Your task to perform on an android device: turn off translation in the chrome app Image 0: 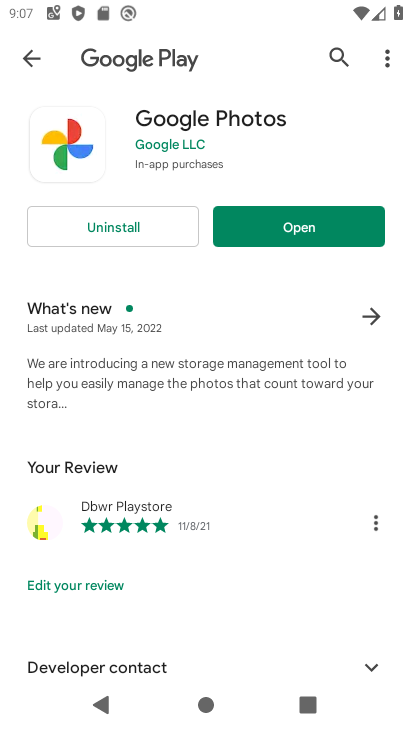
Step 0: press home button
Your task to perform on an android device: turn off translation in the chrome app Image 1: 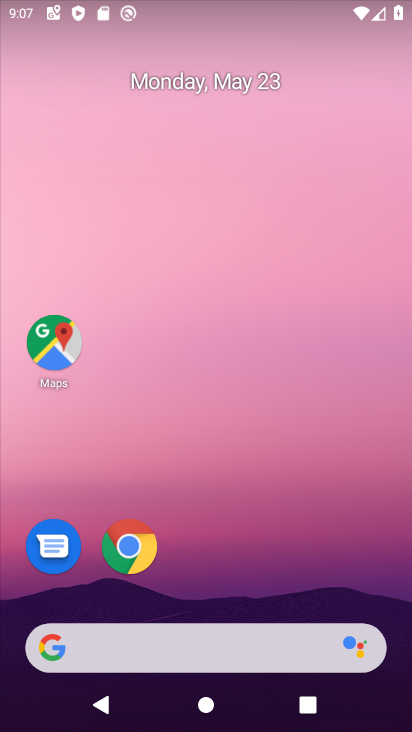
Step 1: click (132, 551)
Your task to perform on an android device: turn off translation in the chrome app Image 2: 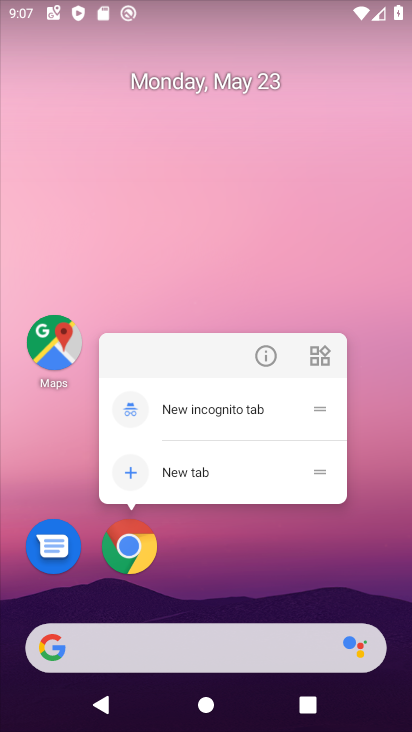
Step 2: click (131, 540)
Your task to perform on an android device: turn off translation in the chrome app Image 3: 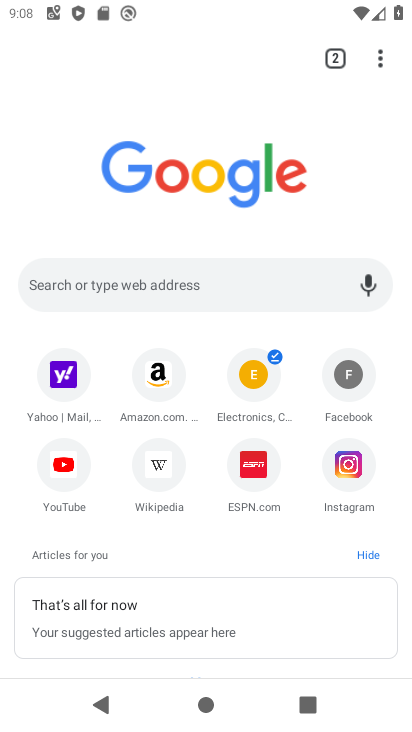
Step 3: drag from (381, 60) to (168, 492)
Your task to perform on an android device: turn off translation in the chrome app Image 4: 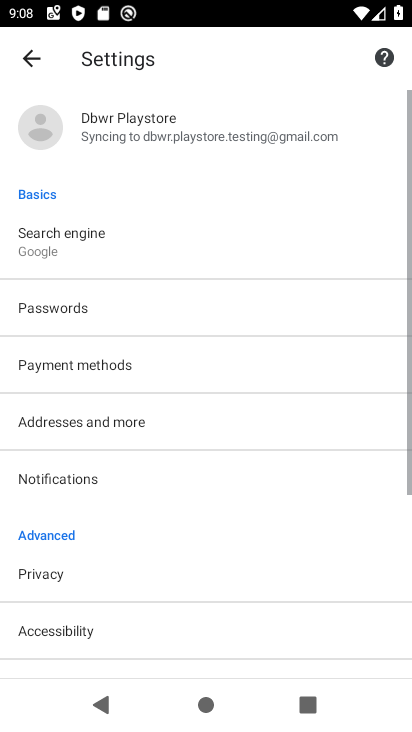
Step 4: drag from (168, 492) to (264, 43)
Your task to perform on an android device: turn off translation in the chrome app Image 5: 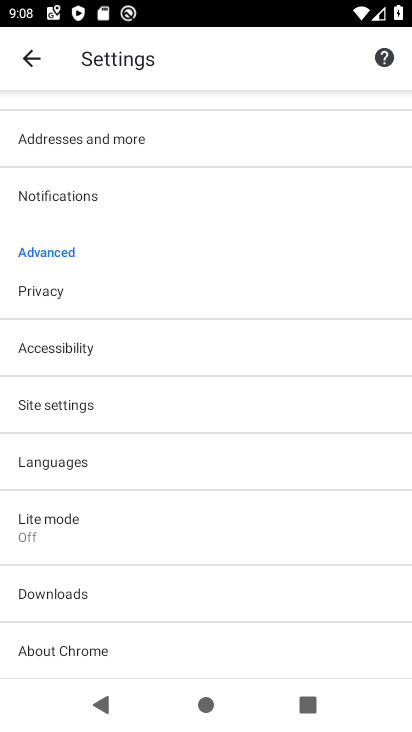
Step 5: drag from (159, 392) to (228, 219)
Your task to perform on an android device: turn off translation in the chrome app Image 6: 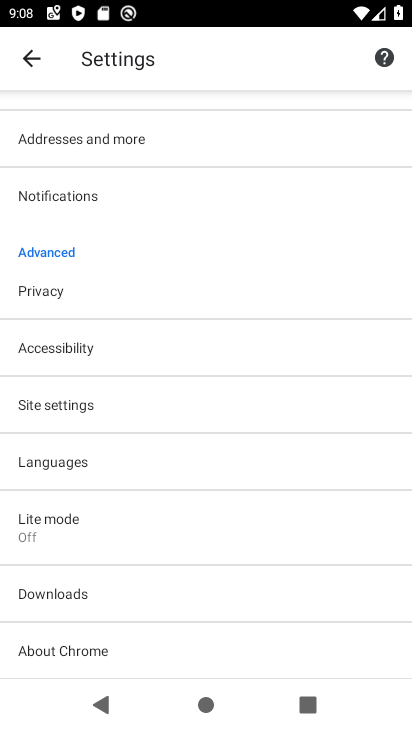
Step 6: click (111, 472)
Your task to perform on an android device: turn off translation in the chrome app Image 7: 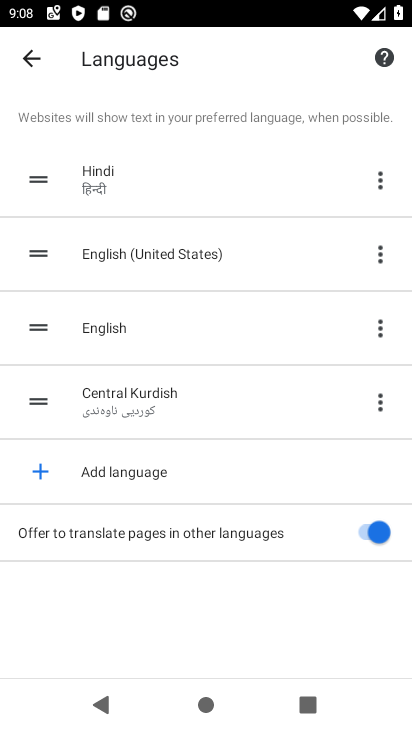
Step 7: click (390, 524)
Your task to perform on an android device: turn off translation in the chrome app Image 8: 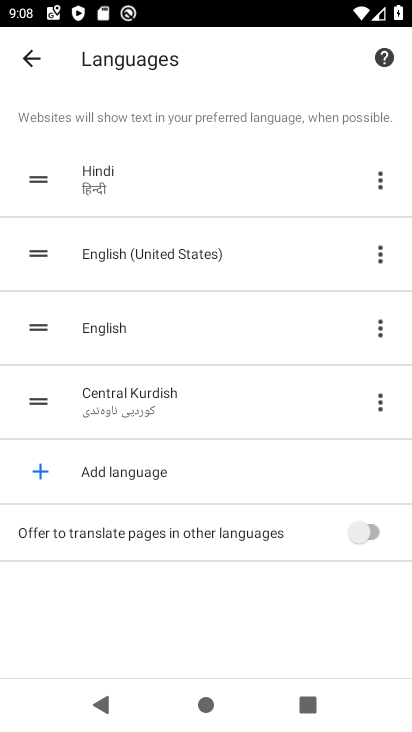
Step 8: task complete